Your task to perform on an android device: turn on notifications settings in the gmail app Image 0: 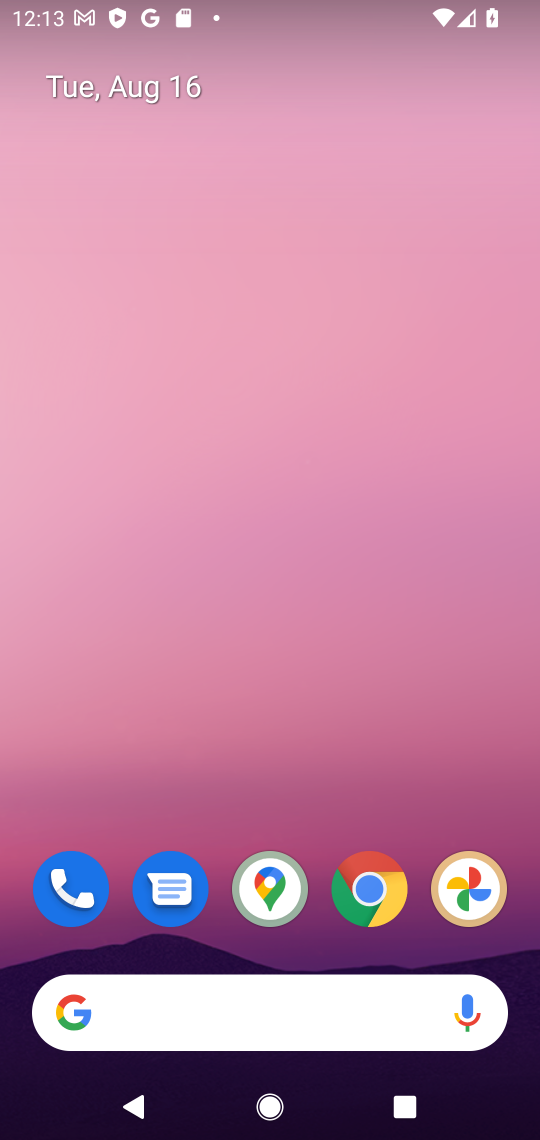
Step 0: drag from (182, 843) to (389, 22)
Your task to perform on an android device: turn on notifications settings in the gmail app Image 1: 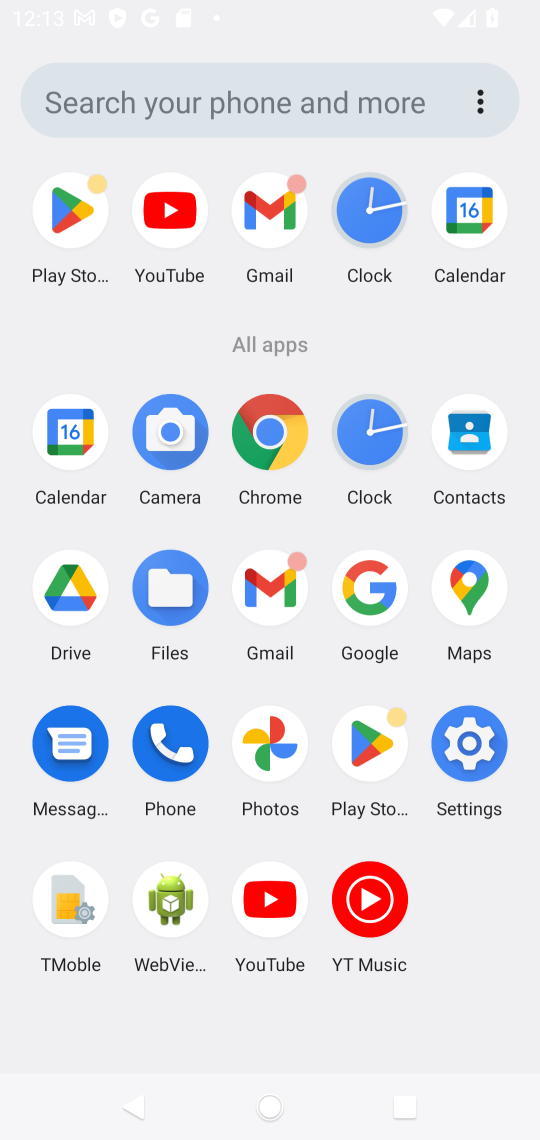
Step 1: click (293, 208)
Your task to perform on an android device: turn on notifications settings in the gmail app Image 2: 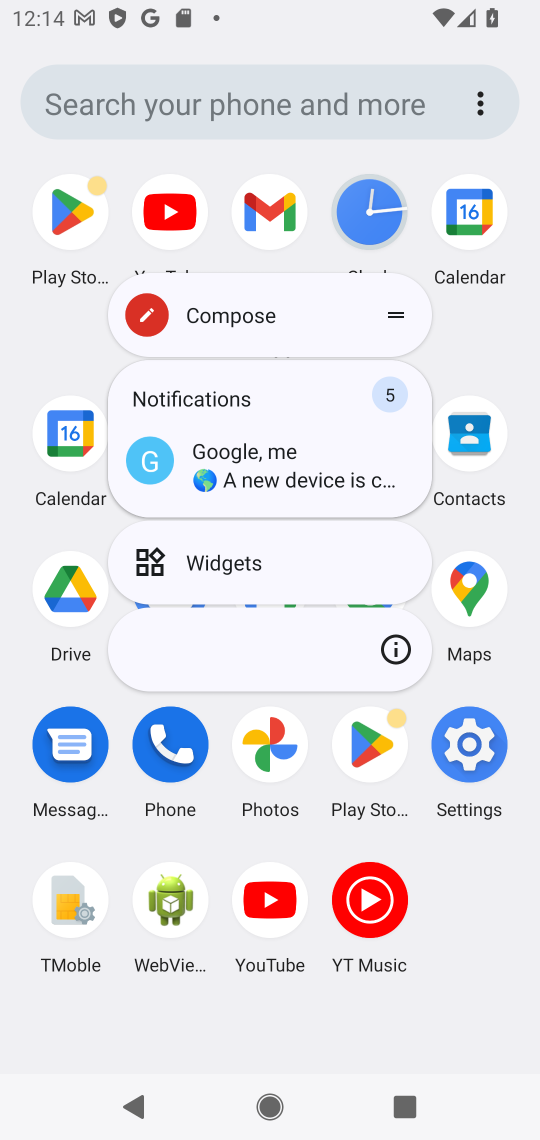
Step 2: click (288, 214)
Your task to perform on an android device: turn on notifications settings in the gmail app Image 3: 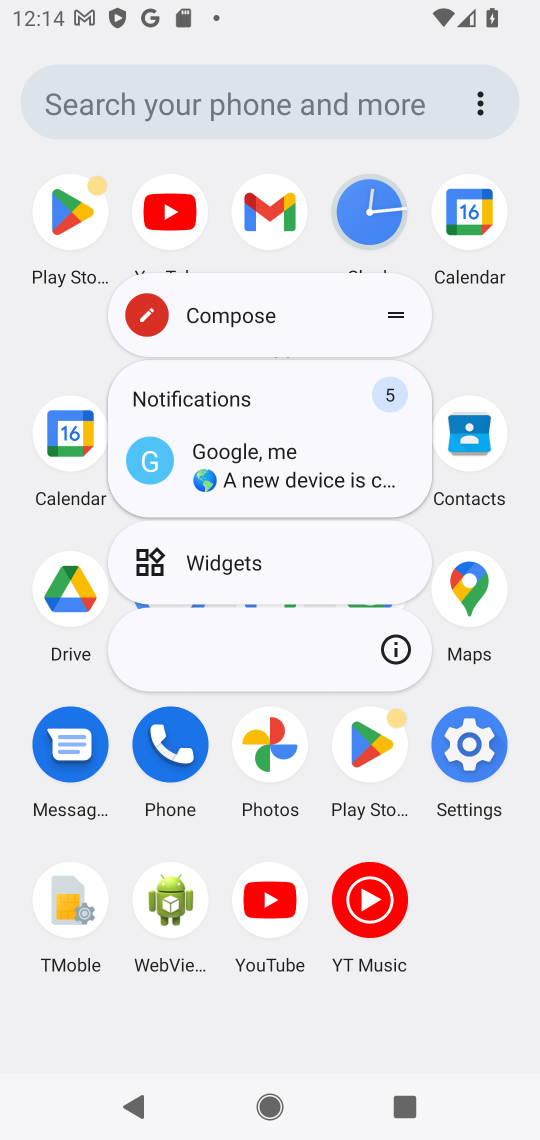
Step 3: click (278, 226)
Your task to perform on an android device: turn on notifications settings in the gmail app Image 4: 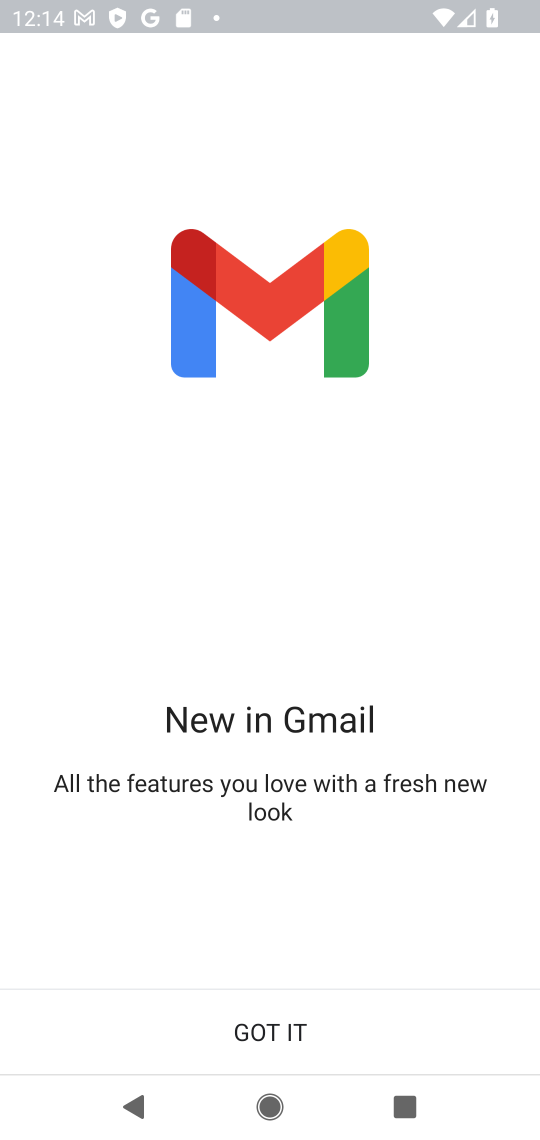
Step 4: click (293, 1045)
Your task to perform on an android device: turn on notifications settings in the gmail app Image 5: 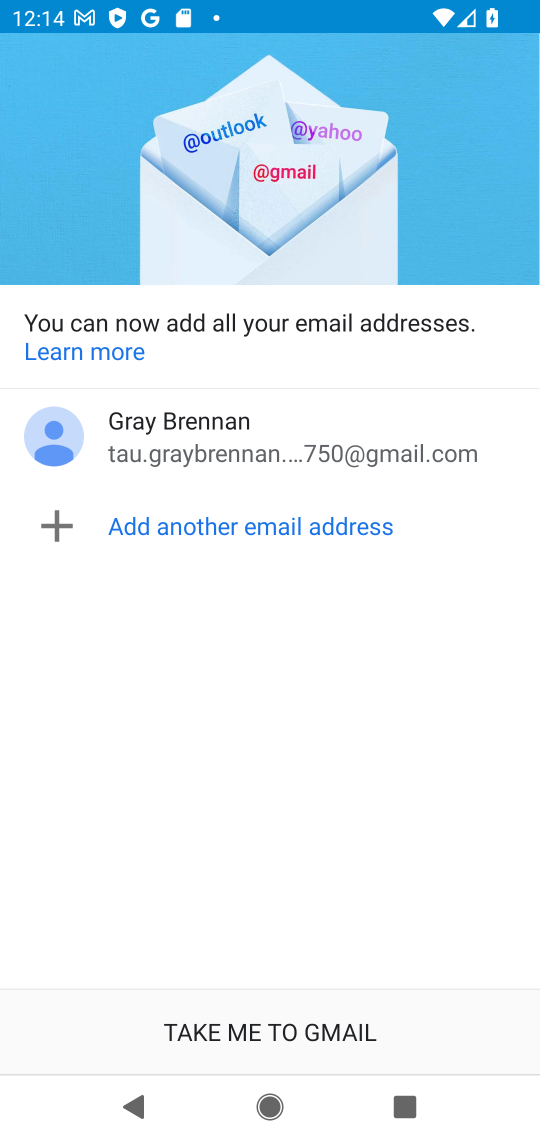
Step 5: click (292, 1038)
Your task to perform on an android device: turn on notifications settings in the gmail app Image 6: 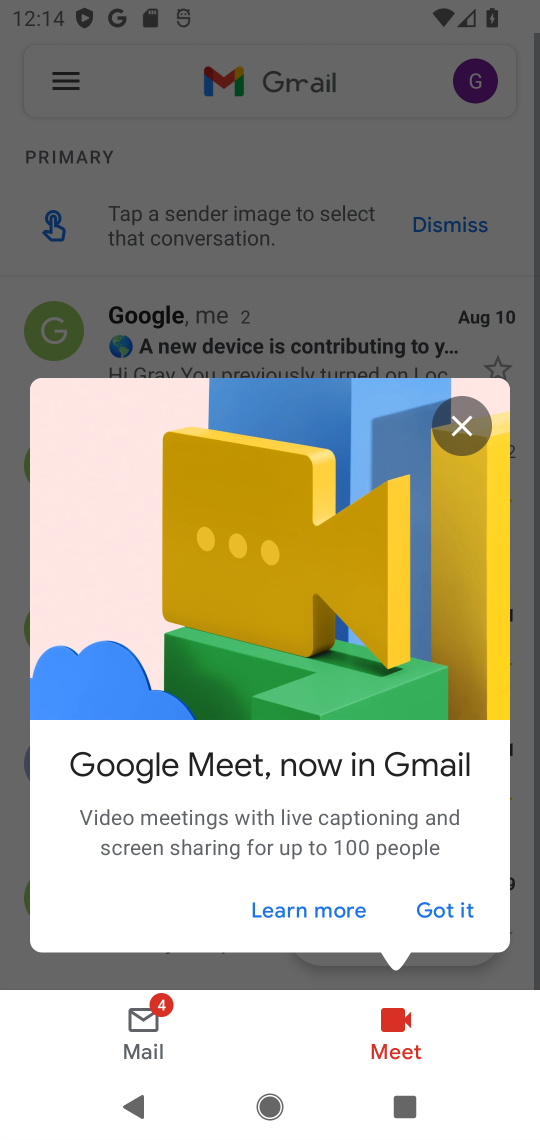
Step 6: click (472, 429)
Your task to perform on an android device: turn on notifications settings in the gmail app Image 7: 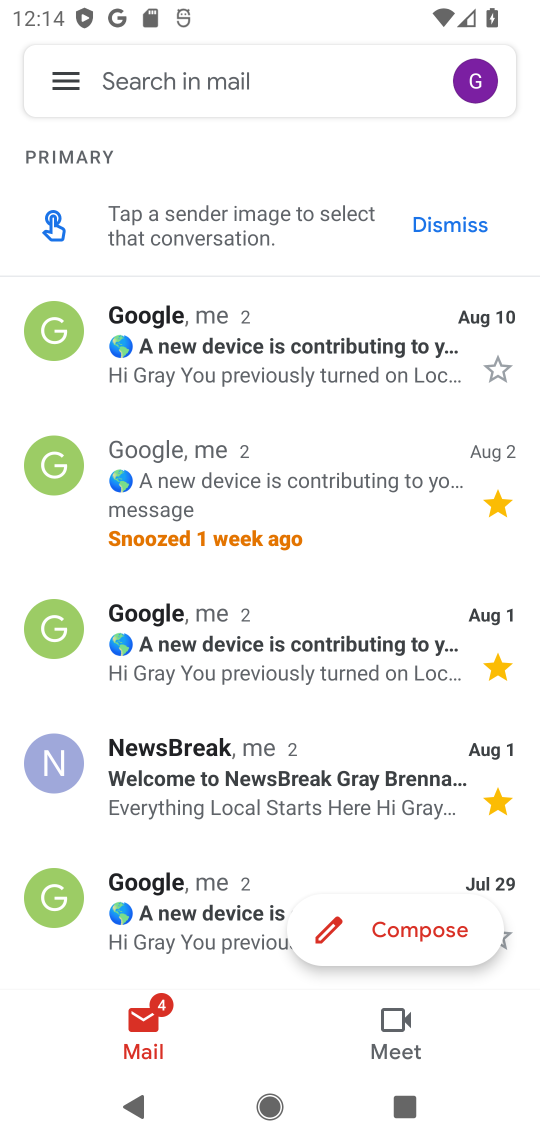
Step 7: click (72, 89)
Your task to perform on an android device: turn on notifications settings in the gmail app Image 8: 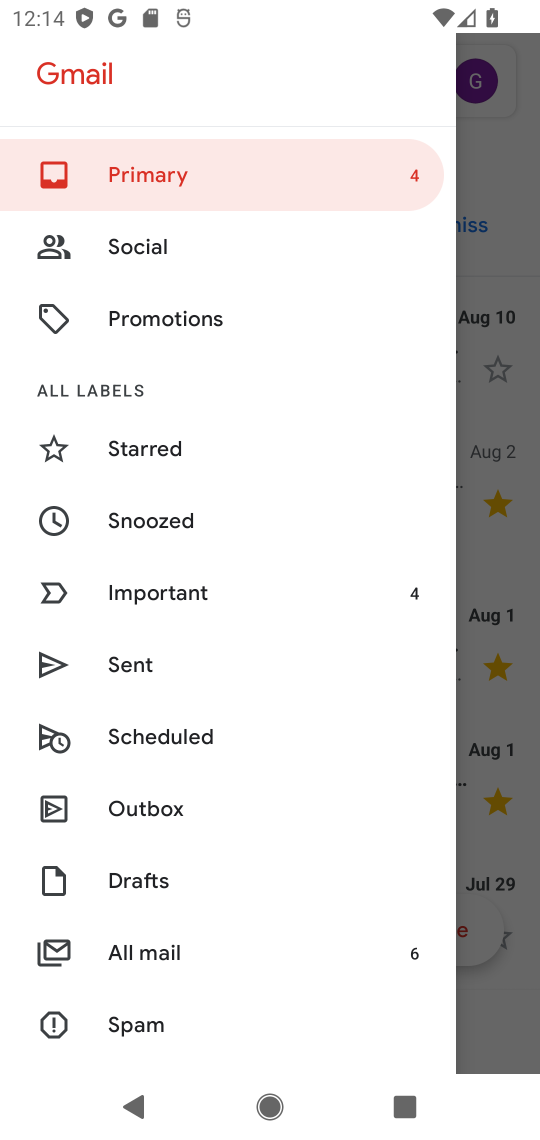
Step 8: drag from (119, 988) to (324, 369)
Your task to perform on an android device: turn on notifications settings in the gmail app Image 9: 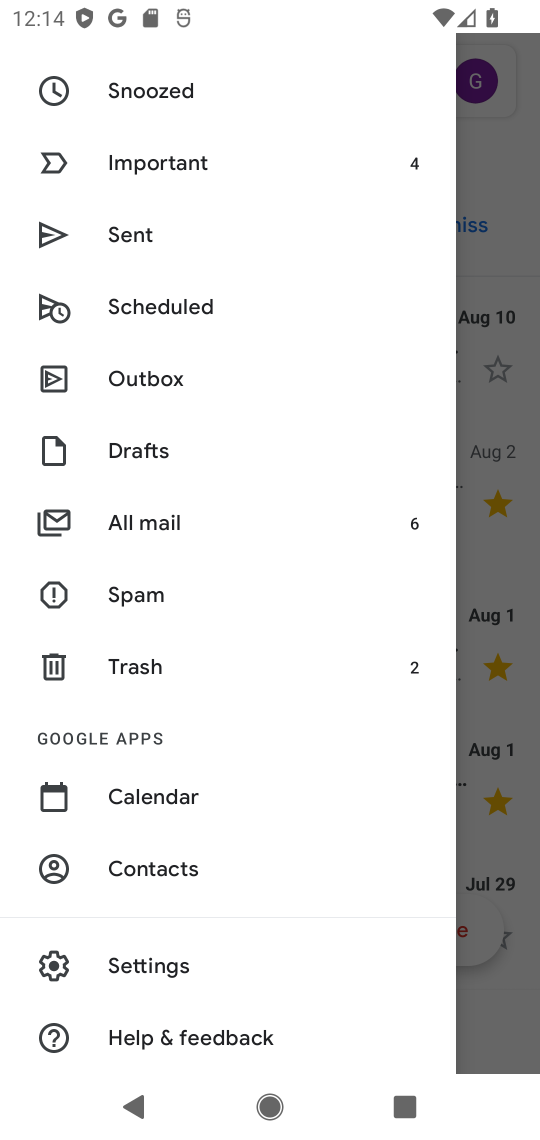
Step 9: click (147, 959)
Your task to perform on an android device: turn on notifications settings in the gmail app Image 10: 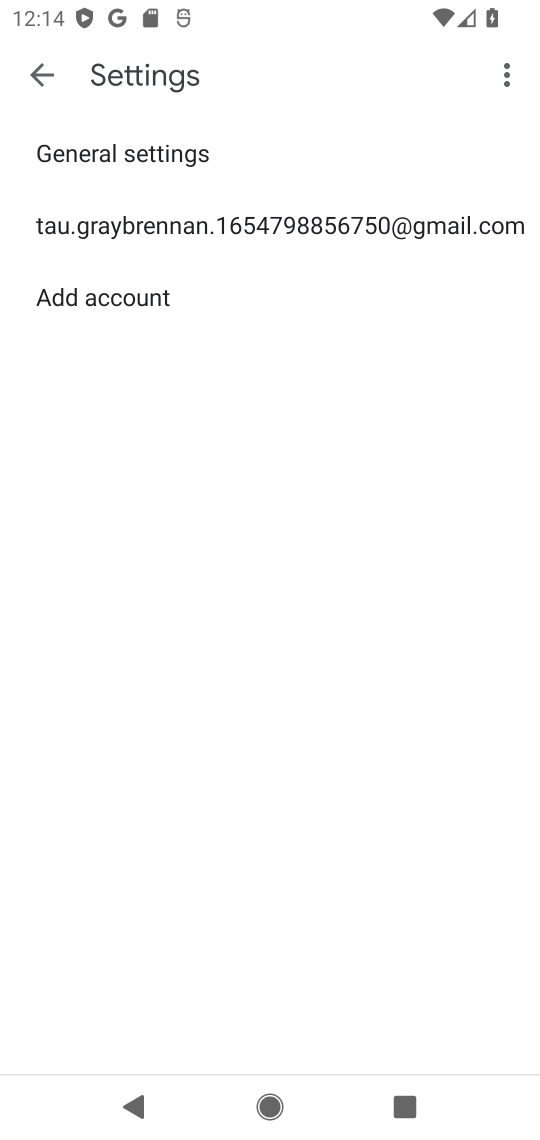
Step 10: click (195, 206)
Your task to perform on an android device: turn on notifications settings in the gmail app Image 11: 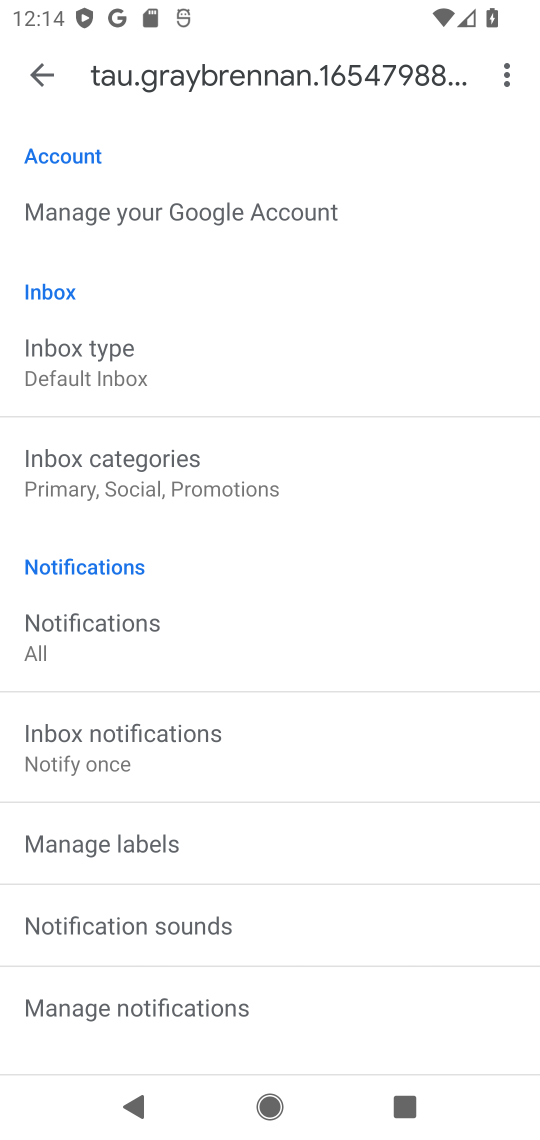
Step 11: click (49, 665)
Your task to perform on an android device: turn on notifications settings in the gmail app Image 12: 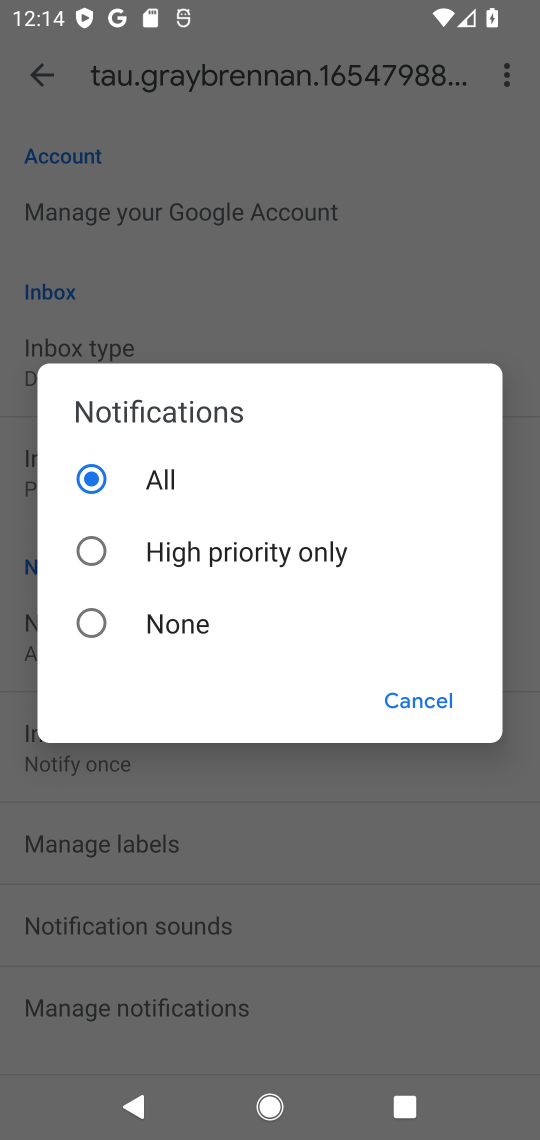
Step 12: task complete